Your task to perform on an android device: Open eBay Image 0: 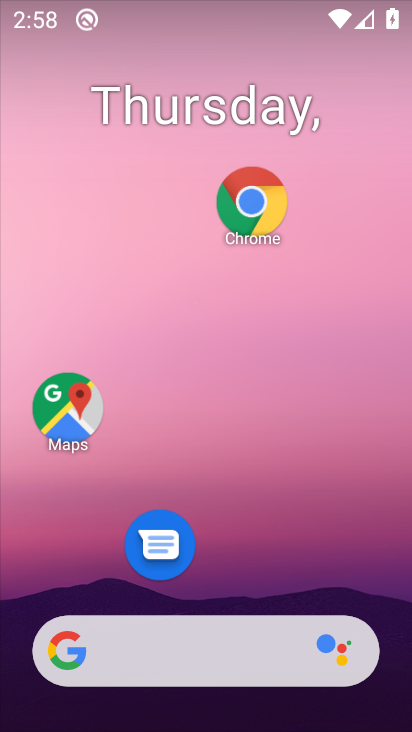
Step 0: click (247, 195)
Your task to perform on an android device: Open eBay Image 1: 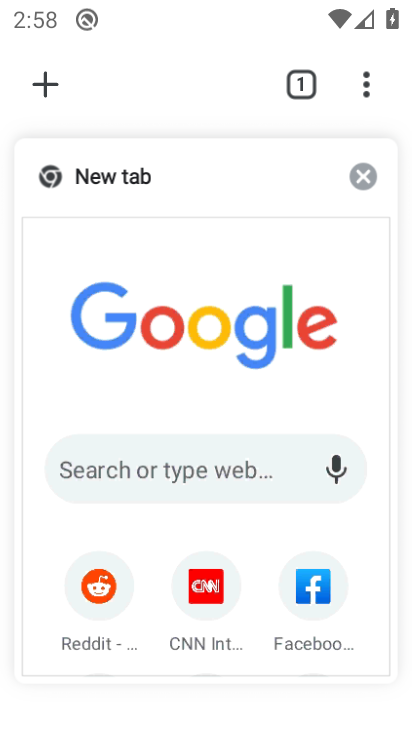
Step 1: drag from (254, 641) to (255, 221)
Your task to perform on an android device: Open eBay Image 2: 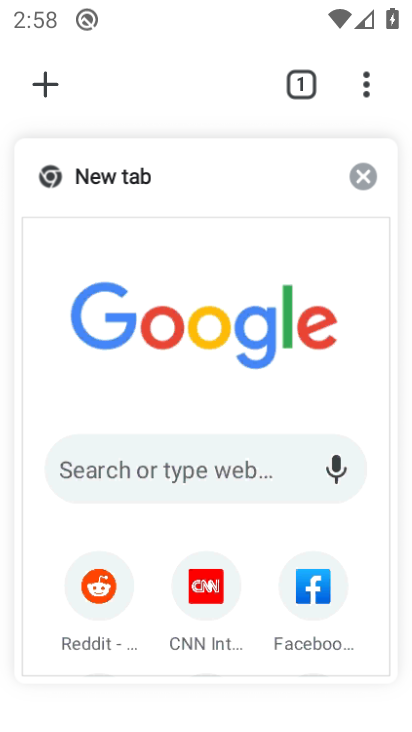
Step 2: click (281, 273)
Your task to perform on an android device: Open eBay Image 3: 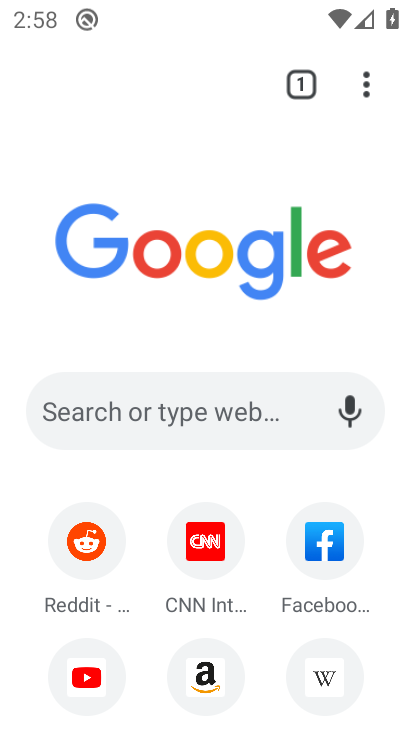
Step 3: click (162, 417)
Your task to perform on an android device: Open eBay Image 4: 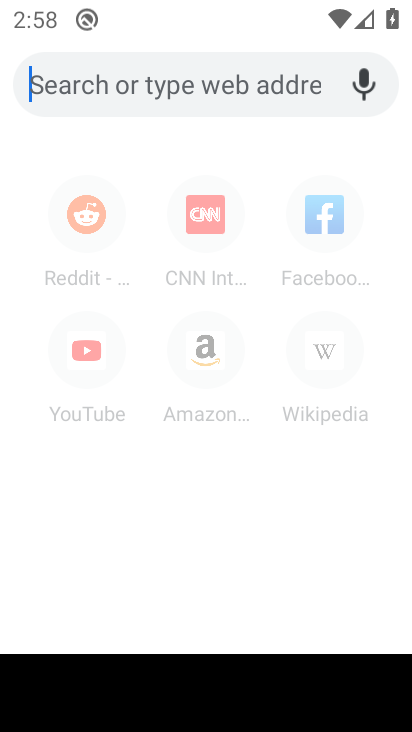
Step 4: type "ebay"
Your task to perform on an android device: Open eBay Image 5: 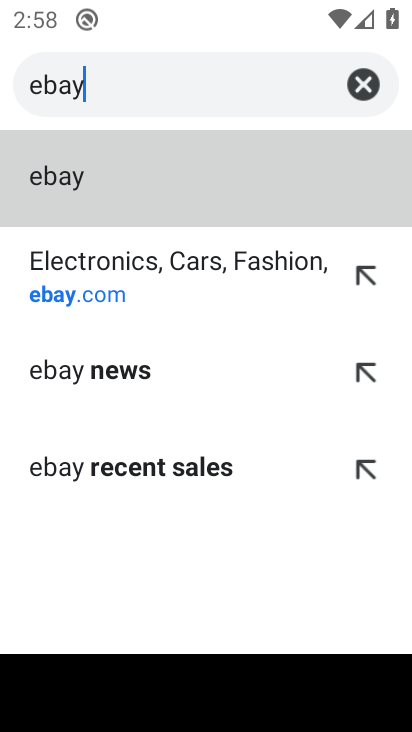
Step 5: click (79, 179)
Your task to perform on an android device: Open eBay Image 6: 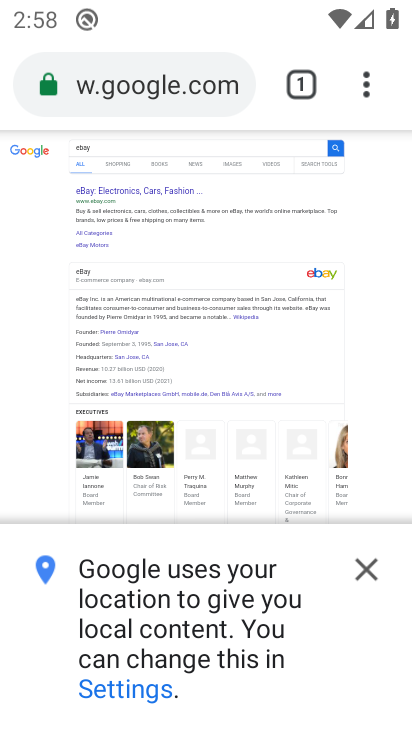
Step 6: click (150, 192)
Your task to perform on an android device: Open eBay Image 7: 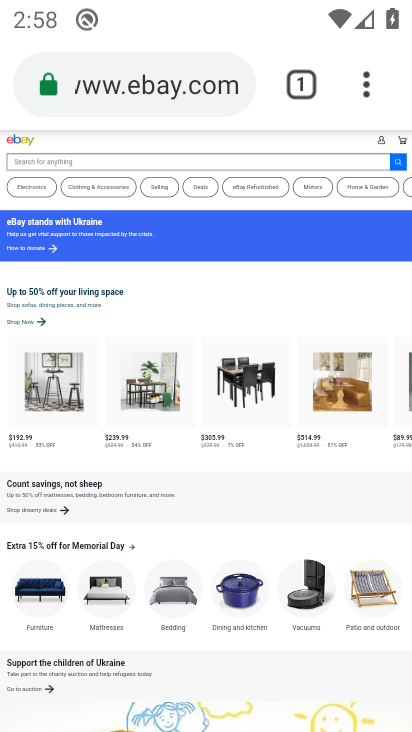
Step 7: task complete